Your task to perform on an android device: Go to eBay Image 0: 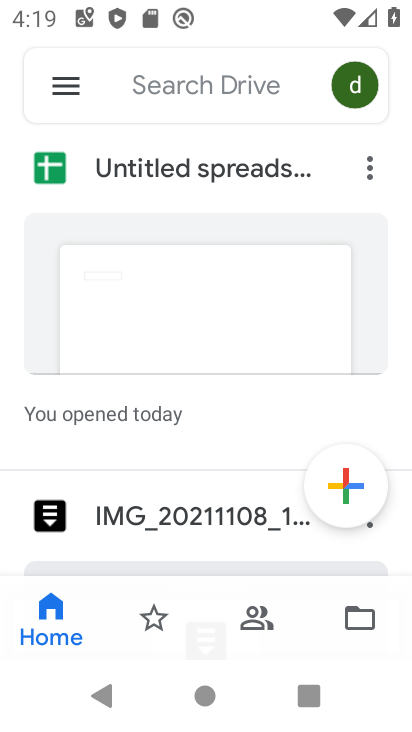
Step 0: press home button
Your task to perform on an android device: Go to eBay Image 1: 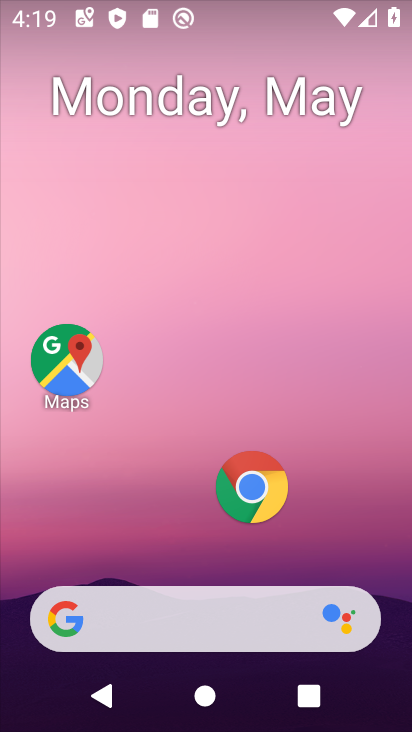
Step 1: click (246, 508)
Your task to perform on an android device: Go to eBay Image 2: 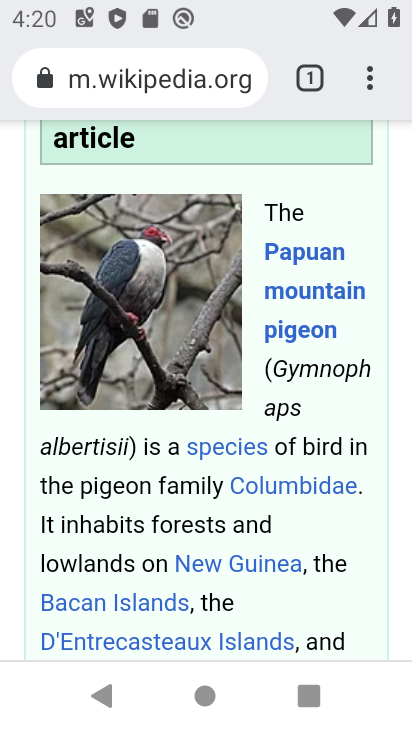
Step 2: click (303, 82)
Your task to perform on an android device: Go to eBay Image 3: 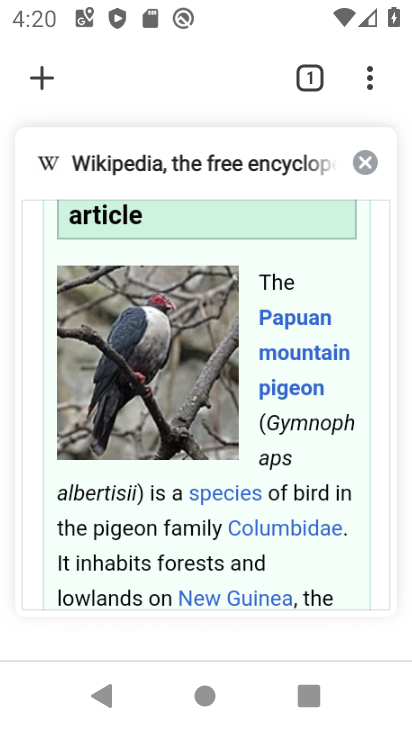
Step 3: click (363, 162)
Your task to perform on an android device: Go to eBay Image 4: 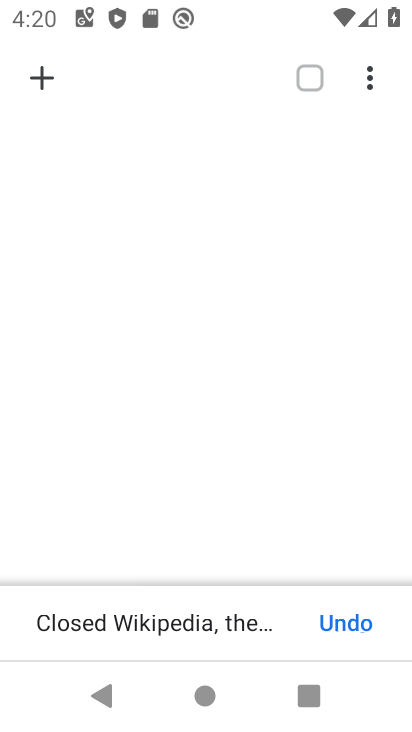
Step 4: click (46, 81)
Your task to perform on an android device: Go to eBay Image 5: 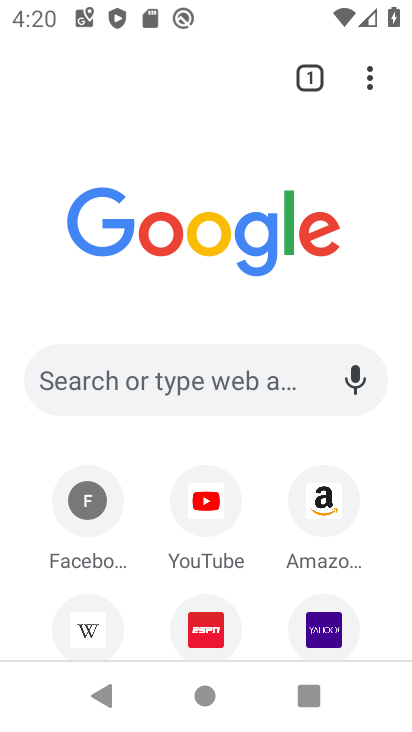
Step 5: type "ebay.com"
Your task to perform on an android device: Go to eBay Image 6: 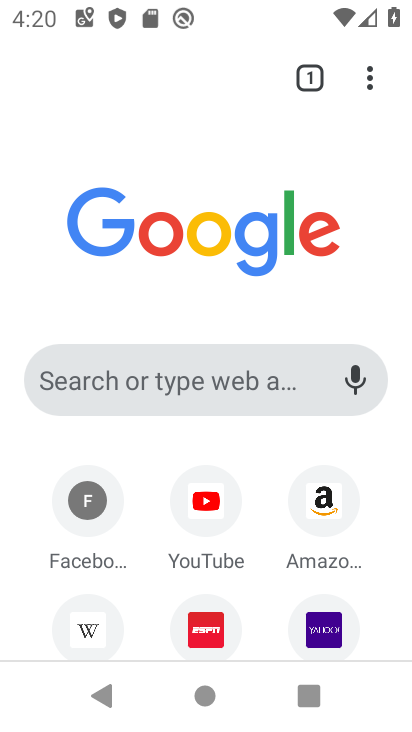
Step 6: click (257, 392)
Your task to perform on an android device: Go to eBay Image 7: 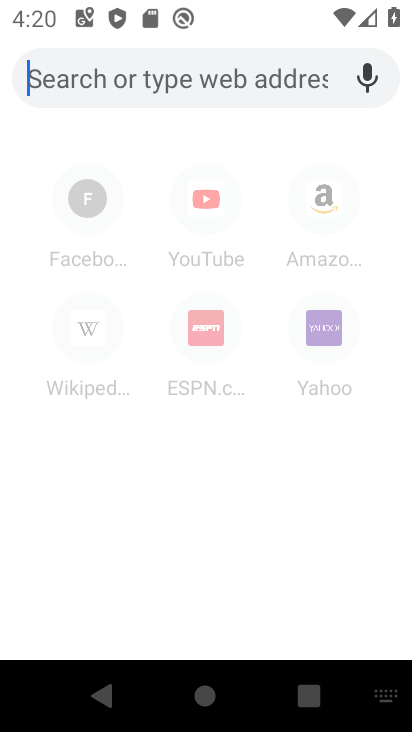
Step 7: type "ebay.com"
Your task to perform on an android device: Go to eBay Image 8: 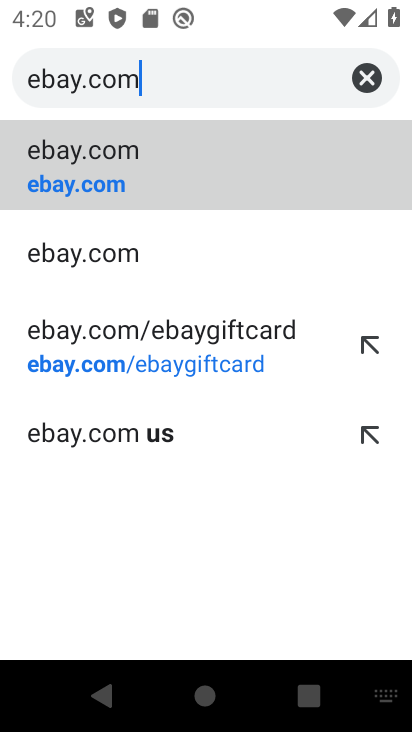
Step 8: click (128, 163)
Your task to perform on an android device: Go to eBay Image 9: 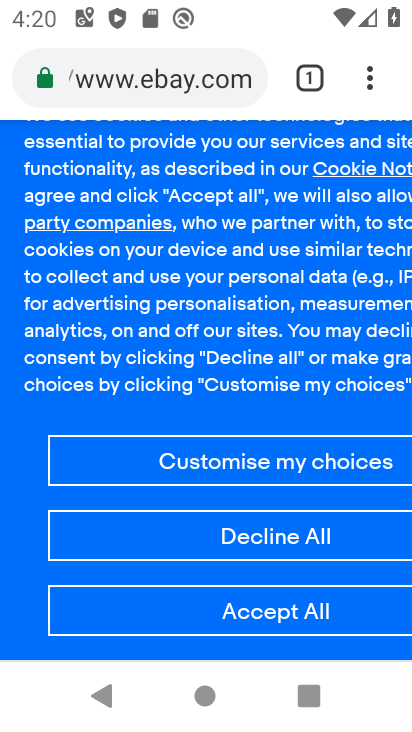
Step 9: task complete